Your task to perform on an android device: open app "DoorDash - Food Delivery" (install if not already installed) and go to login screen Image 0: 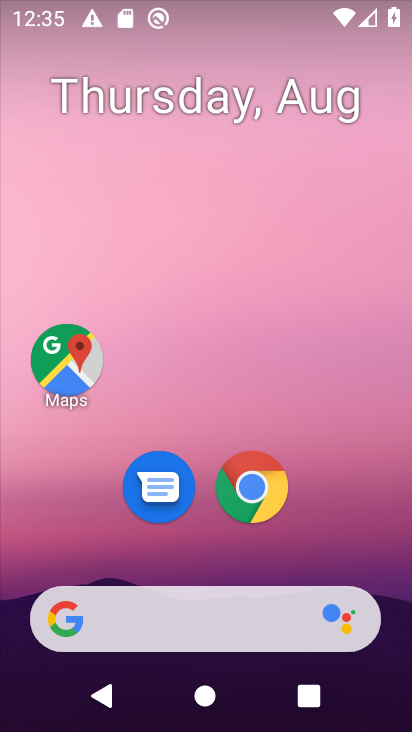
Step 0: drag from (210, 559) to (199, 0)
Your task to perform on an android device: open app "DoorDash - Food Delivery" (install if not already installed) and go to login screen Image 1: 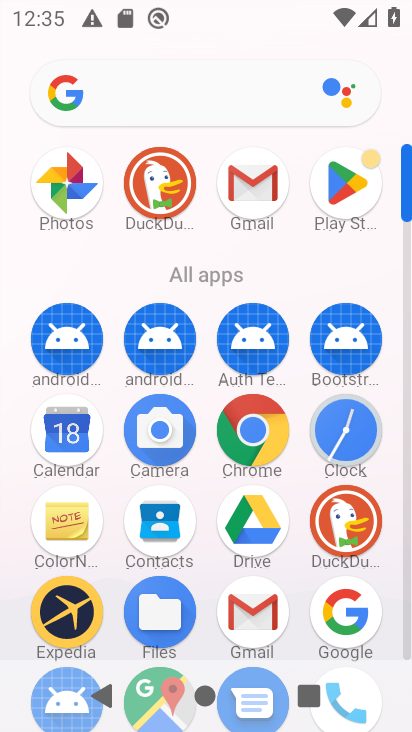
Step 1: click (344, 180)
Your task to perform on an android device: open app "DoorDash - Food Delivery" (install if not already installed) and go to login screen Image 2: 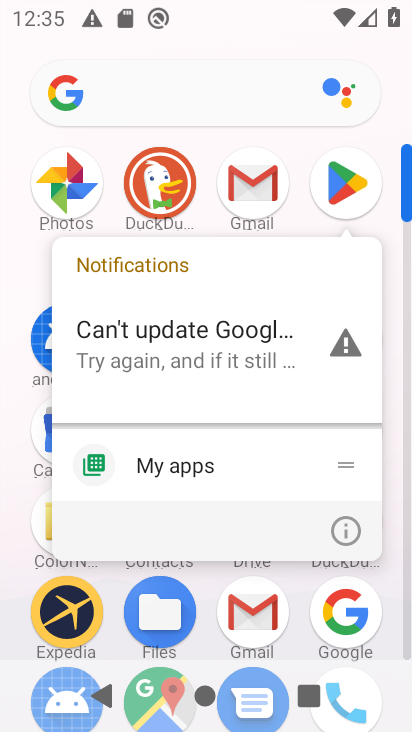
Step 2: click (344, 180)
Your task to perform on an android device: open app "DoorDash - Food Delivery" (install if not already installed) and go to login screen Image 3: 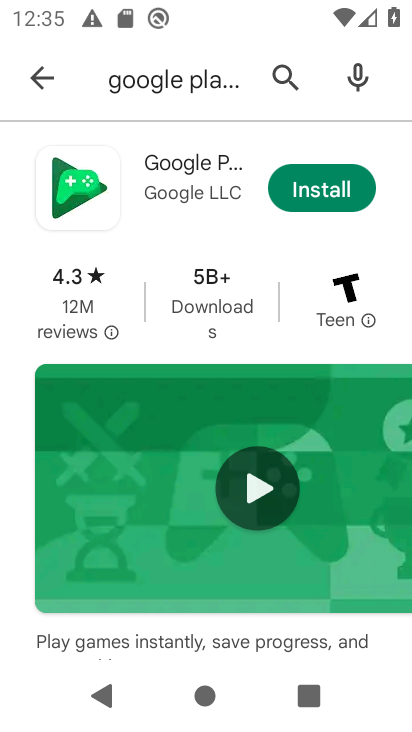
Step 3: click (276, 70)
Your task to perform on an android device: open app "DoorDash - Food Delivery" (install if not already installed) and go to login screen Image 4: 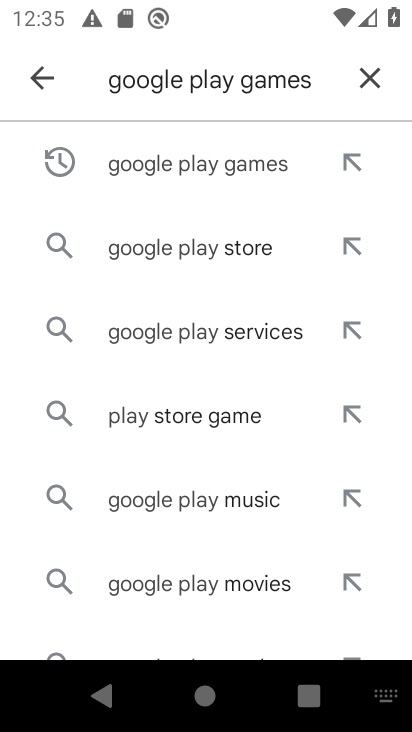
Step 4: click (371, 82)
Your task to perform on an android device: open app "DoorDash - Food Delivery" (install if not already installed) and go to login screen Image 5: 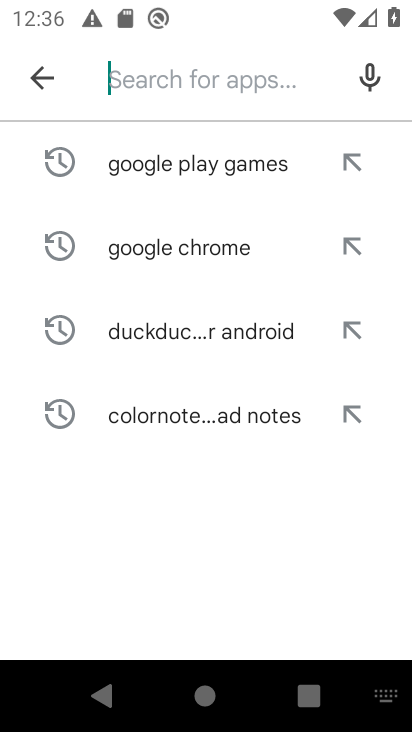
Step 5: type "DoorDash - Food Delivery"
Your task to perform on an android device: open app "DoorDash - Food Delivery" (install if not already installed) and go to login screen Image 6: 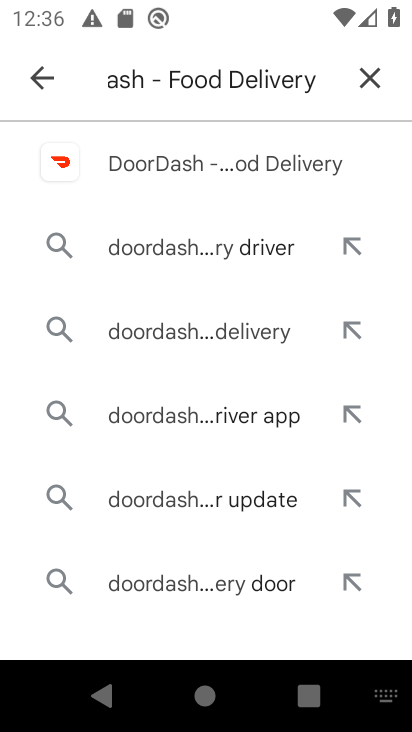
Step 6: click (178, 159)
Your task to perform on an android device: open app "DoorDash - Food Delivery" (install if not already installed) and go to login screen Image 7: 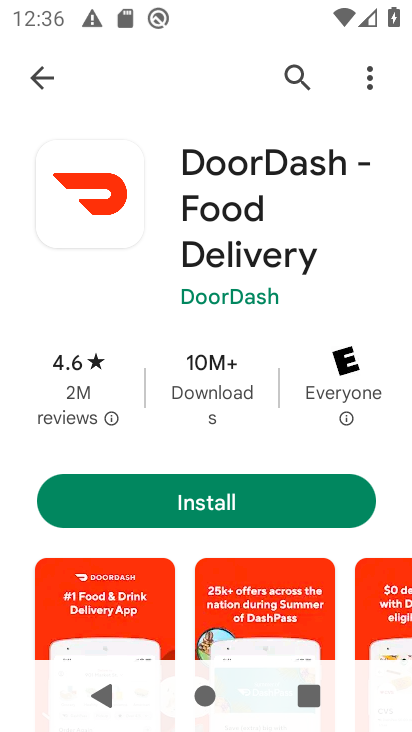
Step 7: click (210, 504)
Your task to perform on an android device: open app "DoorDash - Food Delivery" (install if not already installed) and go to login screen Image 8: 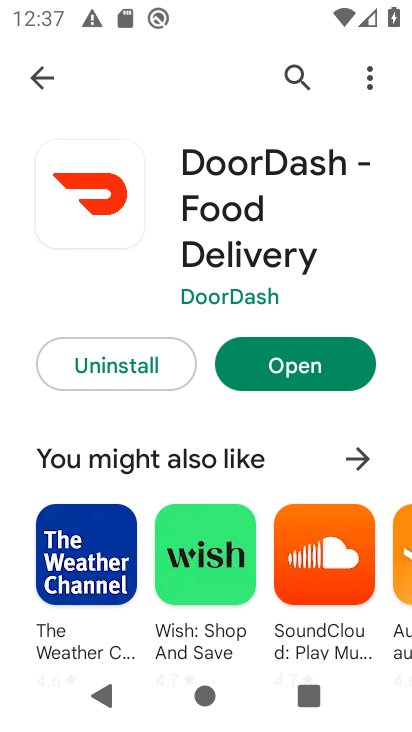
Step 8: click (296, 371)
Your task to perform on an android device: open app "DoorDash - Food Delivery" (install if not already installed) and go to login screen Image 9: 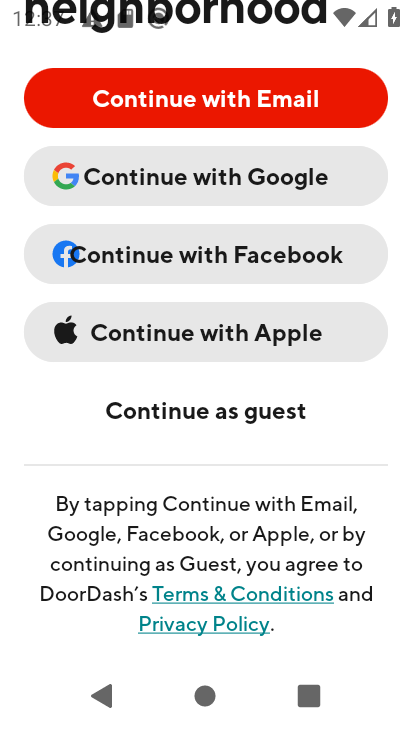
Step 9: click (194, 187)
Your task to perform on an android device: open app "DoorDash - Food Delivery" (install if not already installed) and go to login screen Image 10: 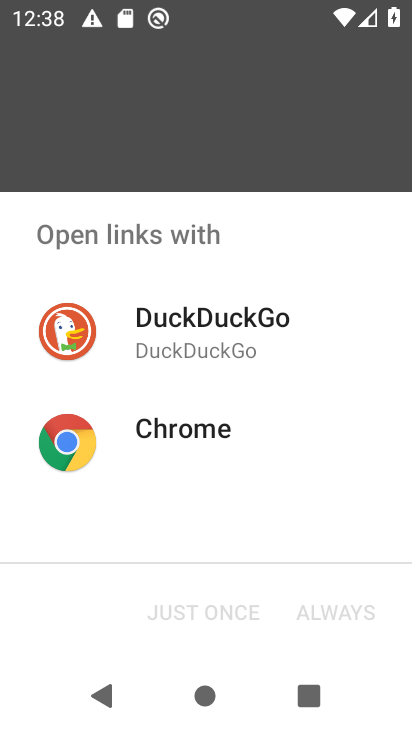
Step 10: click (124, 443)
Your task to perform on an android device: open app "DoorDash - Food Delivery" (install if not already installed) and go to login screen Image 11: 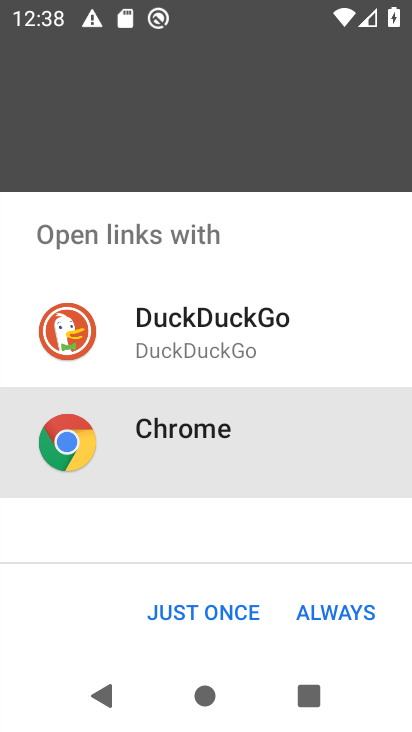
Step 11: click (110, 336)
Your task to perform on an android device: open app "DoorDash - Food Delivery" (install if not already installed) and go to login screen Image 12: 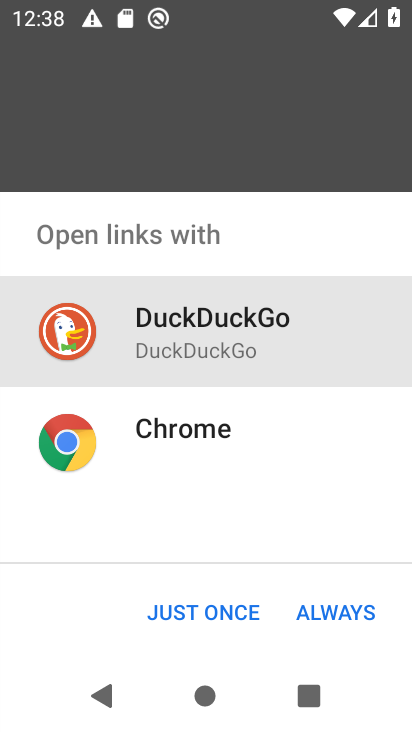
Step 12: click (227, 612)
Your task to perform on an android device: open app "DoorDash - Food Delivery" (install if not already installed) and go to login screen Image 13: 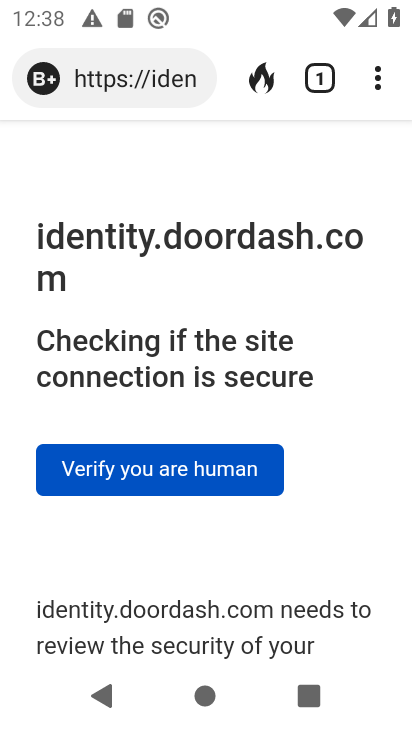
Step 13: task complete